Your task to perform on an android device: open chrome and create a bookmark for the current page Image 0: 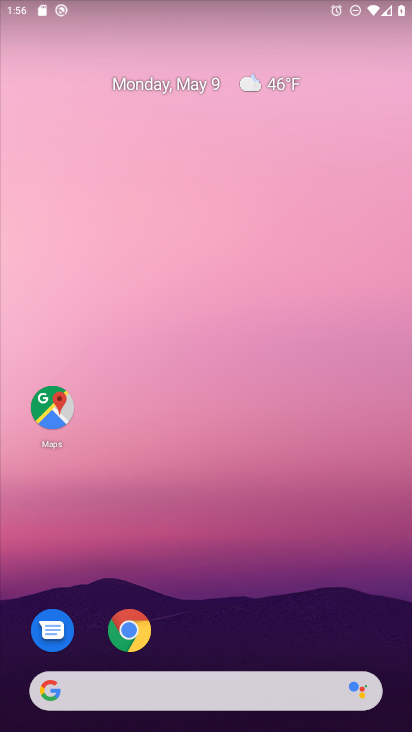
Step 0: click (312, 184)
Your task to perform on an android device: open chrome and create a bookmark for the current page Image 1: 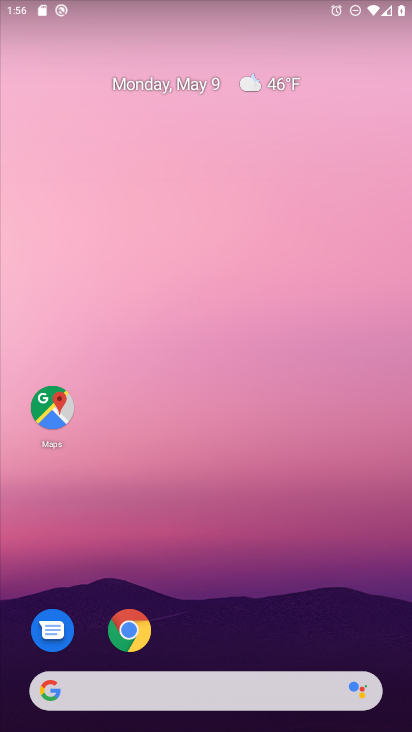
Step 1: drag from (246, 705) to (225, 336)
Your task to perform on an android device: open chrome and create a bookmark for the current page Image 2: 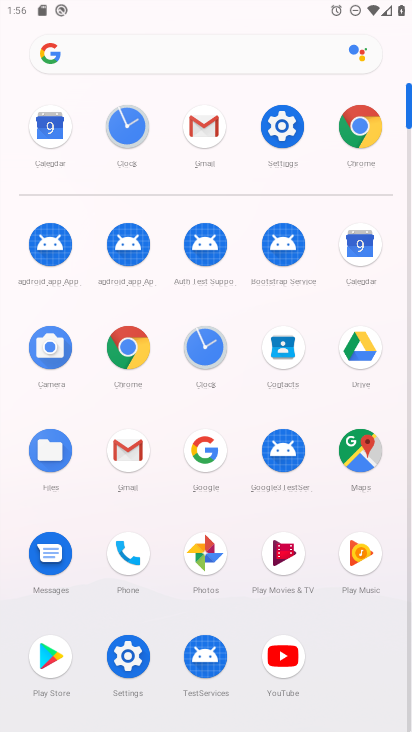
Step 2: click (131, 340)
Your task to perform on an android device: open chrome and create a bookmark for the current page Image 3: 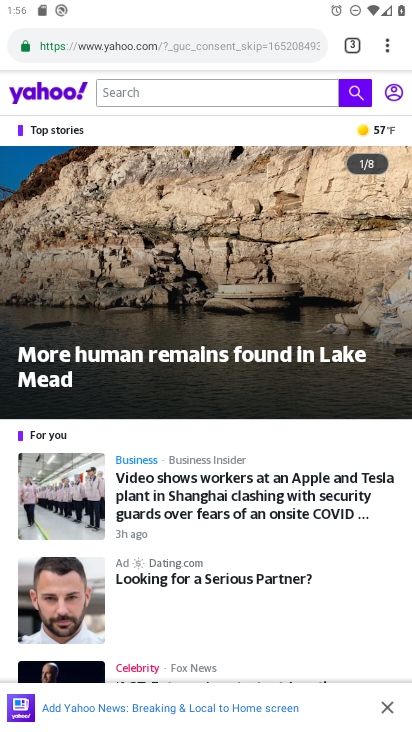
Step 3: click (386, 52)
Your task to perform on an android device: open chrome and create a bookmark for the current page Image 4: 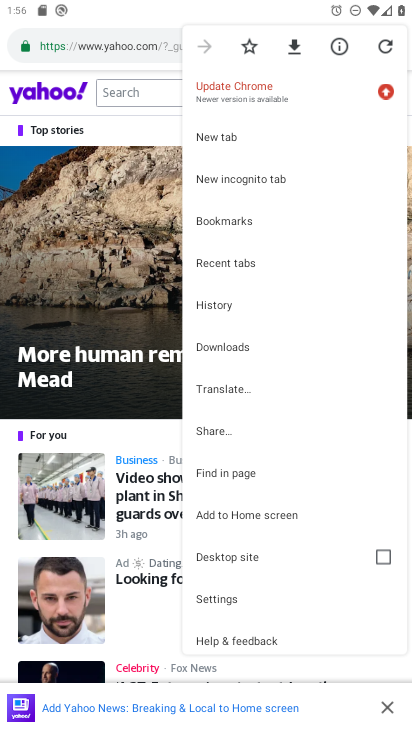
Step 4: click (250, 220)
Your task to perform on an android device: open chrome and create a bookmark for the current page Image 5: 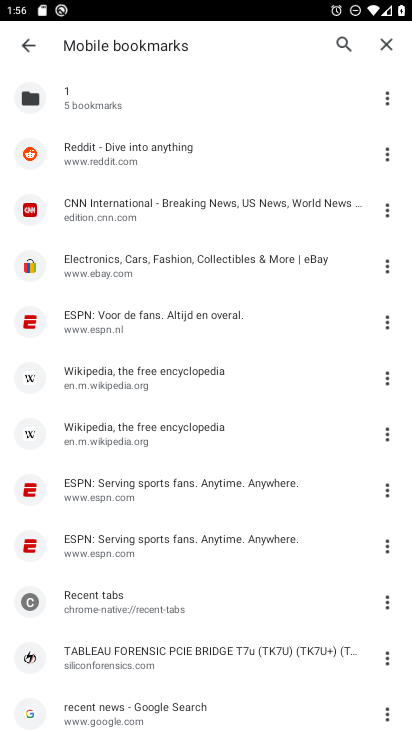
Step 5: task complete